Your task to perform on an android device: delete browsing data in the chrome app Image 0: 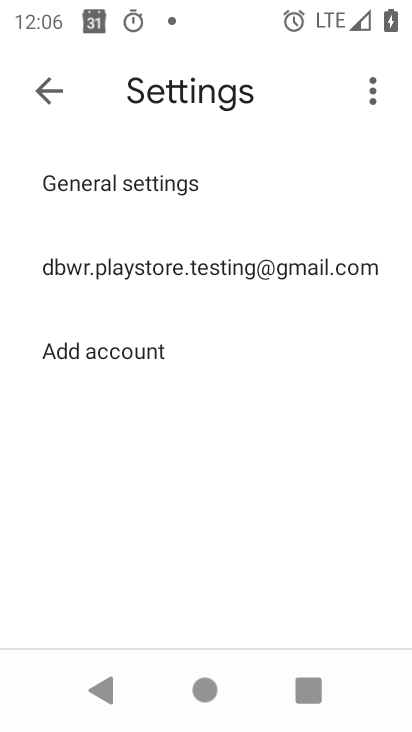
Step 0: press home button
Your task to perform on an android device: delete browsing data in the chrome app Image 1: 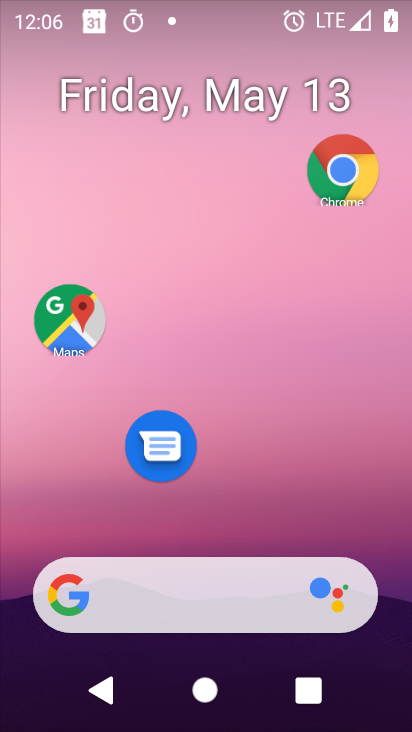
Step 1: drag from (279, 579) to (330, 3)
Your task to perform on an android device: delete browsing data in the chrome app Image 2: 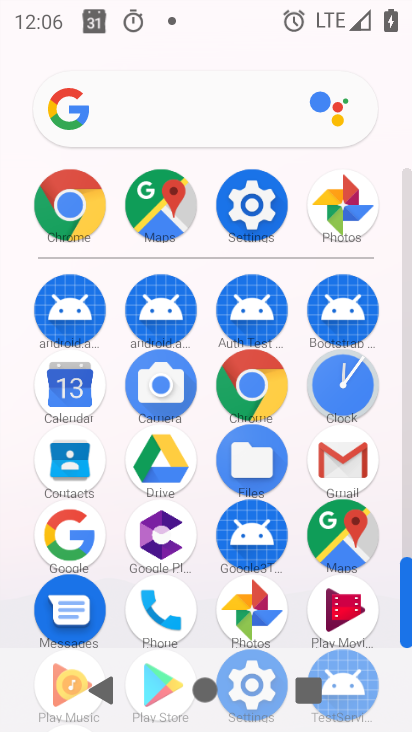
Step 2: click (265, 386)
Your task to perform on an android device: delete browsing data in the chrome app Image 3: 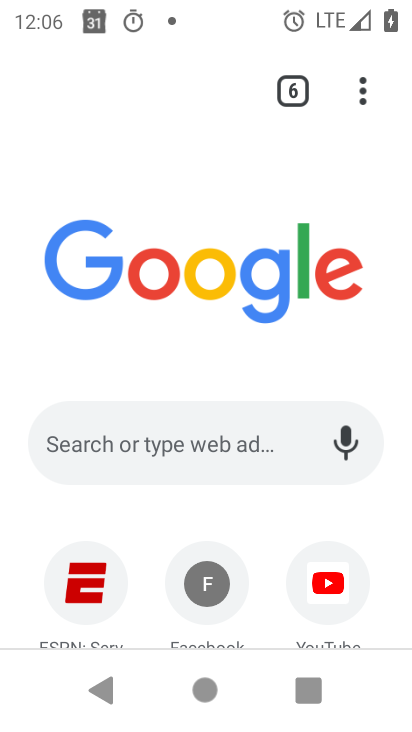
Step 3: drag from (357, 89) to (147, 390)
Your task to perform on an android device: delete browsing data in the chrome app Image 4: 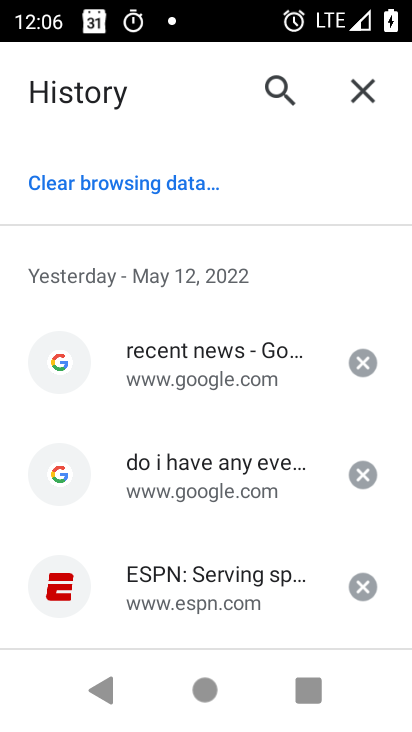
Step 4: click (127, 188)
Your task to perform on an android device: delete browsing data in the chrome app Image 5: 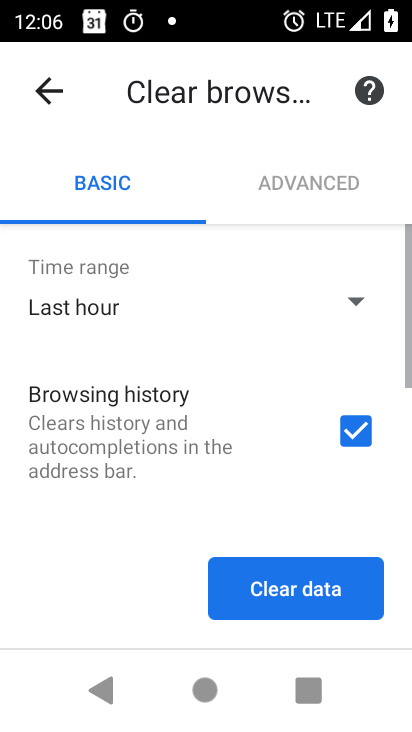
Step 5: click (273, 597)
Your task to perform on an android device: delete browsing data in the chrome app Image 6: 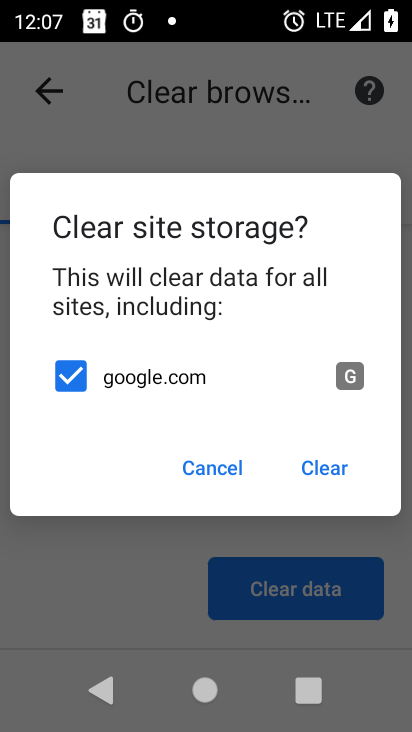
Step 6: click (319, 459)
Your task to perform on an android device: delete browsing data in the chrome app Image 7: 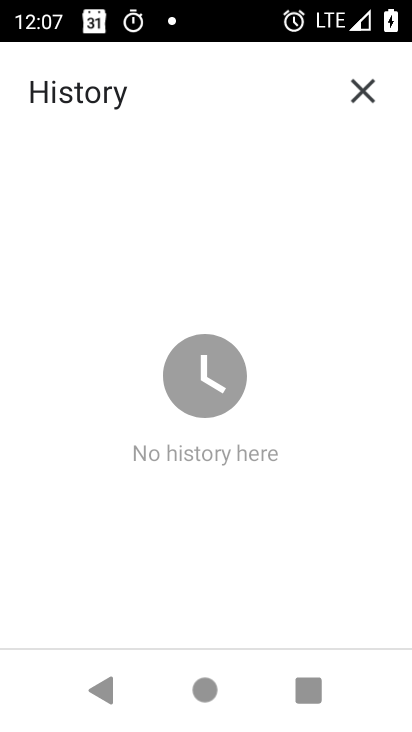
Step 7: task complete